Your task to perform on an android device: open chrome privacy settings Image 0: 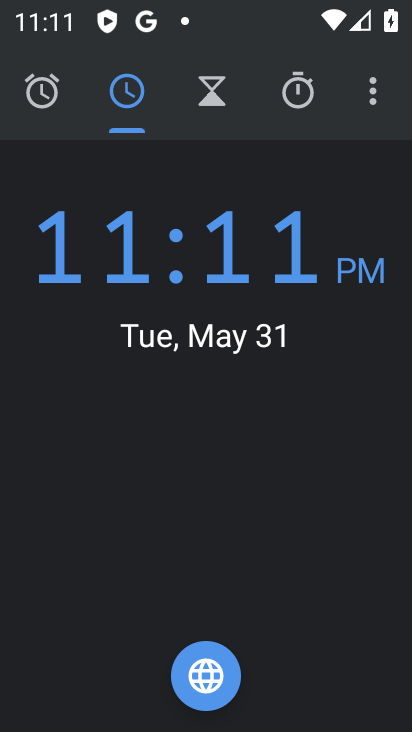
Step 0: press home button
Your task to perform on an android device: open chrome privacy settings Image 1: 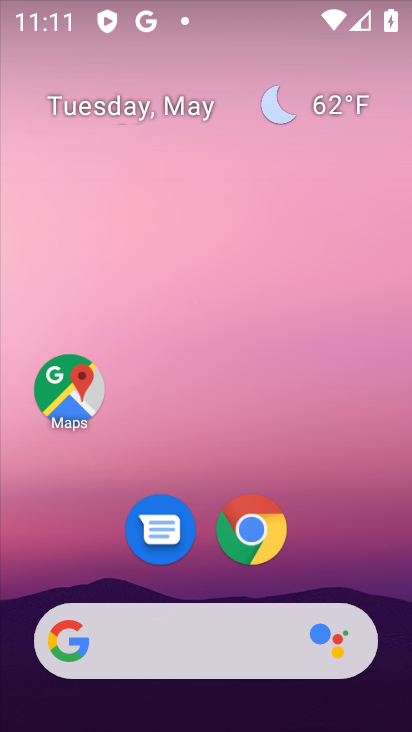
Step 1: click (260, 545)
Your task to perform on an android device: open chrome privacy settings Image 2: 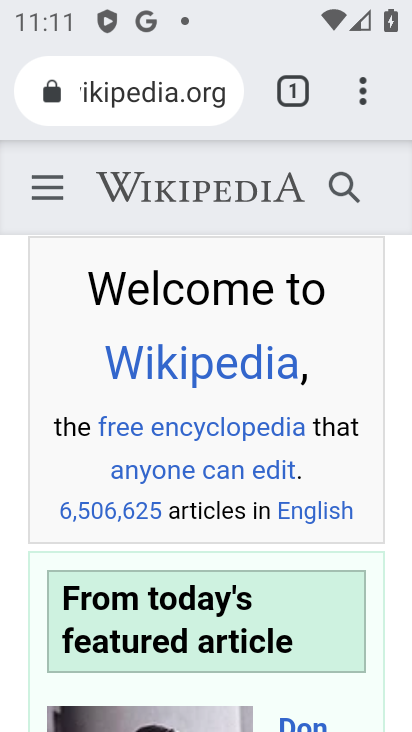
Step 2: click (364, 104)
Your task to perform on an android device: open chrome privacy settings Image 3: 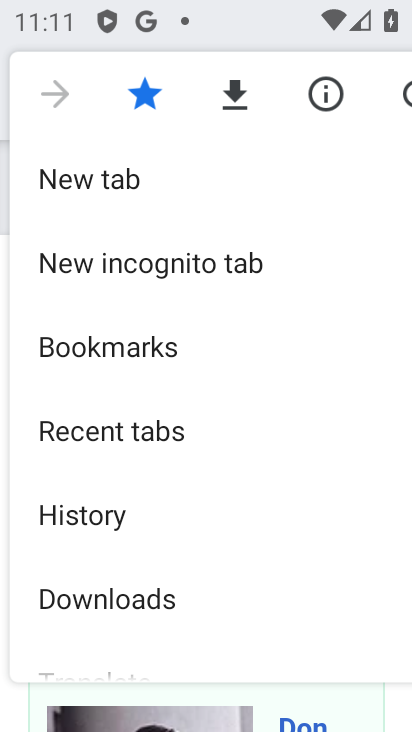
Step 3: drag from (104, 617) to (135, 227)
Your task to perform on an android device: open chrome privacy settings Image 4: 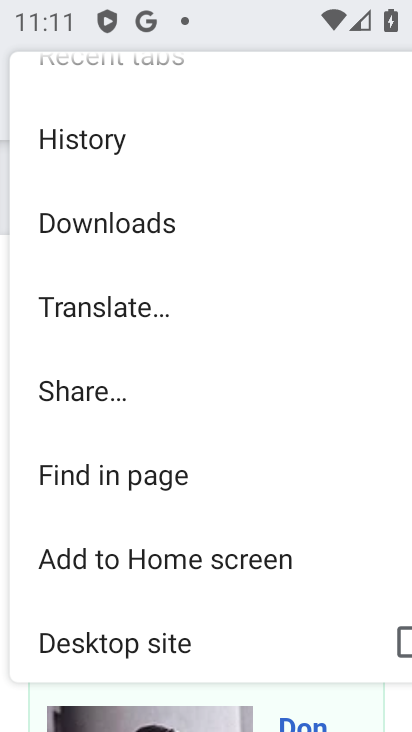
Step 4: drag from (118, 603) to (127, 236)
Your task to perform on an android device: open chrome privacy settings Image 5: 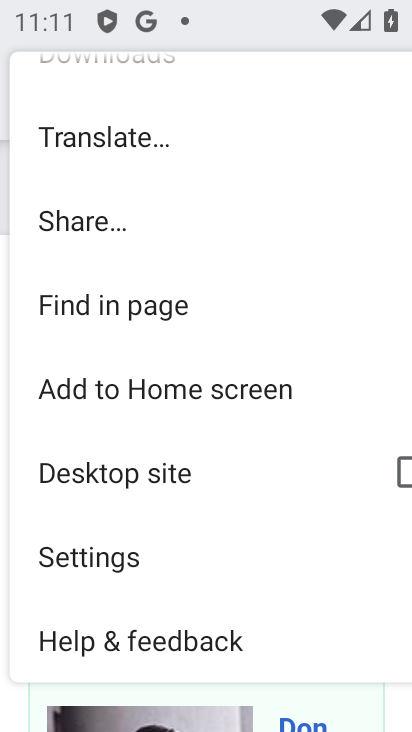
Step 5: click (108, 551)
Your task to perform on an android device: open chrome privacy settings Image 6: 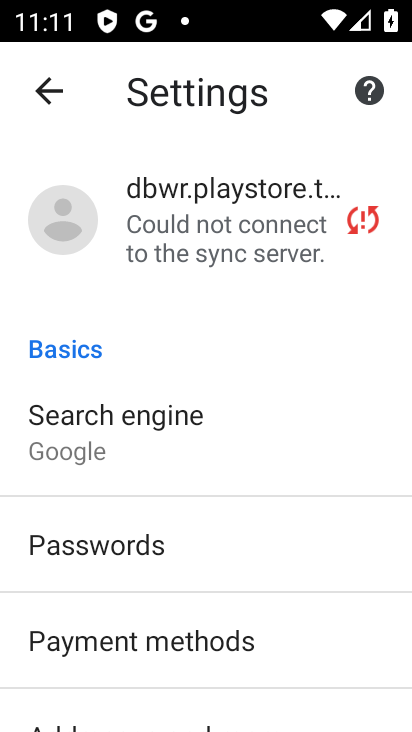
Step 6: drag from (300, 675) to (288, 258)
Your task to perform on an android device: open chrome privacy settings Image 7: 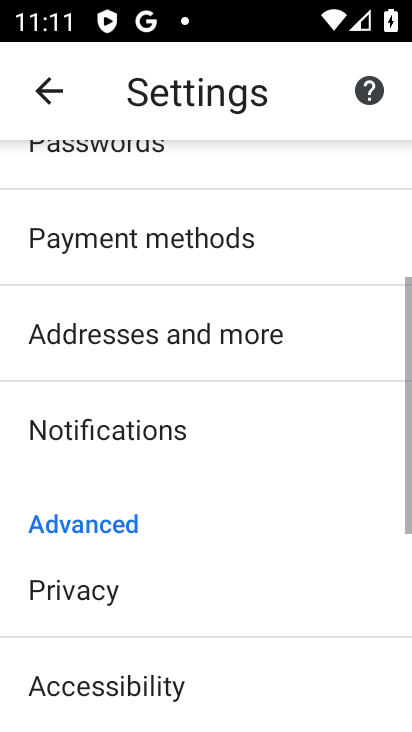
Step 7: click (85, 598)
Your task to perform on an android device: open chrome privacy settings Image 8: 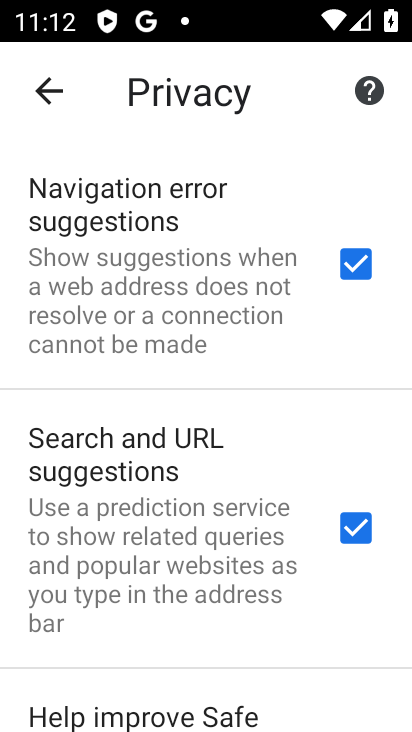
Step 8: task complete